Your task to perform on an android device: Open Google Image 0: 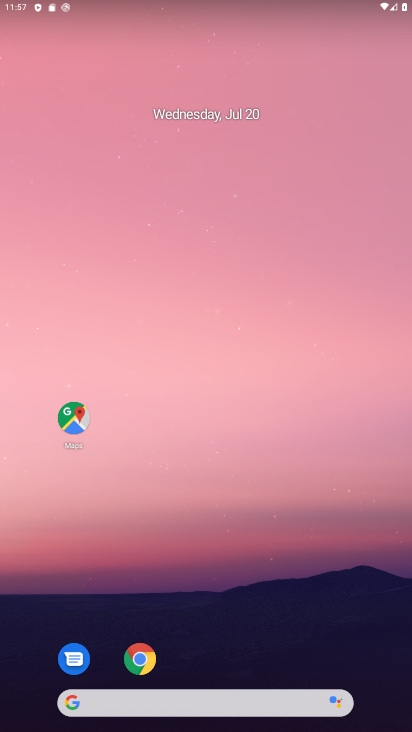
Step 0: drag from (236, 614) to (237, 403)
Your task to perform on an android device: Open Google Image 1: 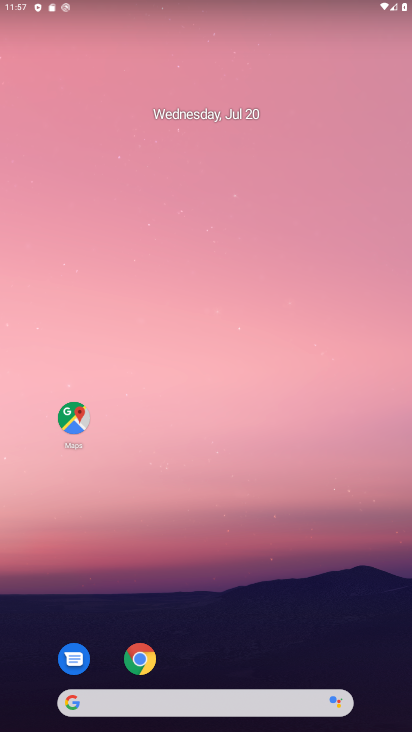
Step 1: drag from (220, 679) to (210, 254)
Your task to perform on an android device: Open Google Image 2: 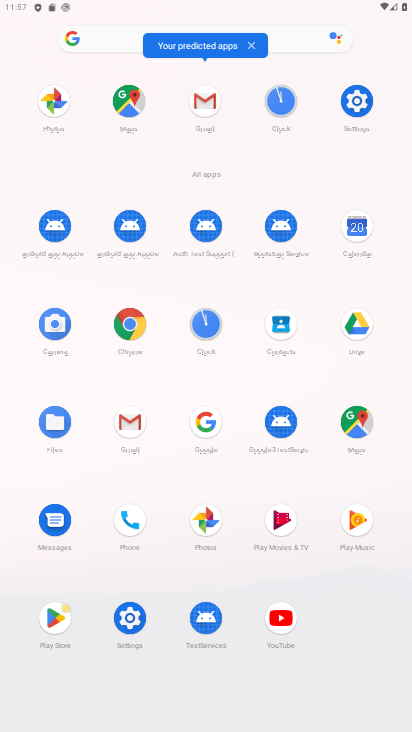
Step 2: click (198, 421)
Your task to perform on an android device: Open Google Image 3: 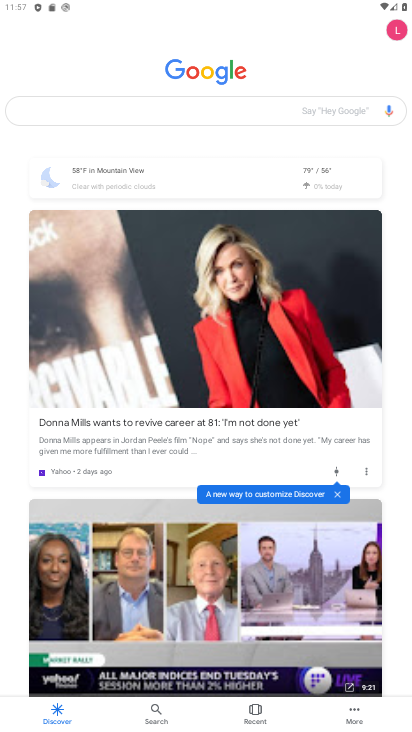
Step 3: task complete